Your task to perform on an android device: Open location settings Image 0: 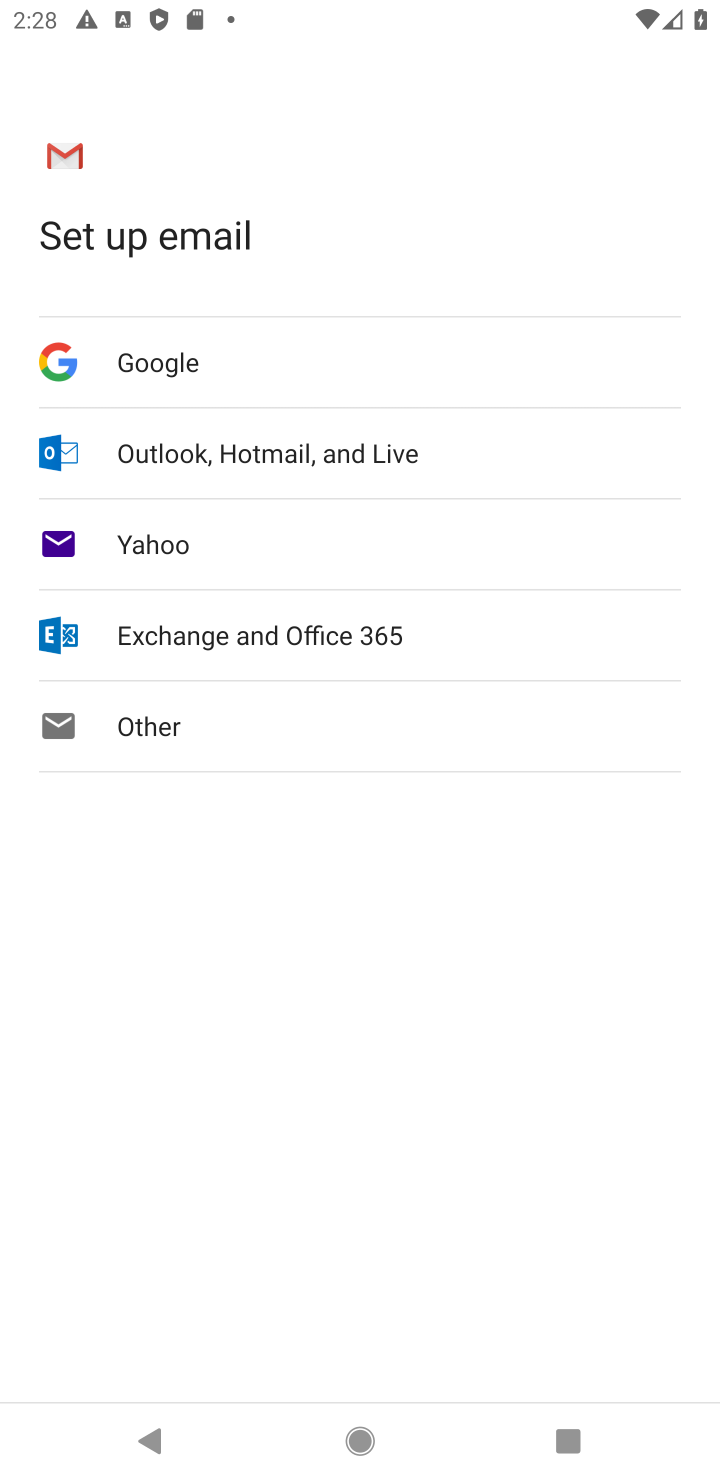
Step 0: press home button
Your task to perform on an android device: Open location settings Image 1: 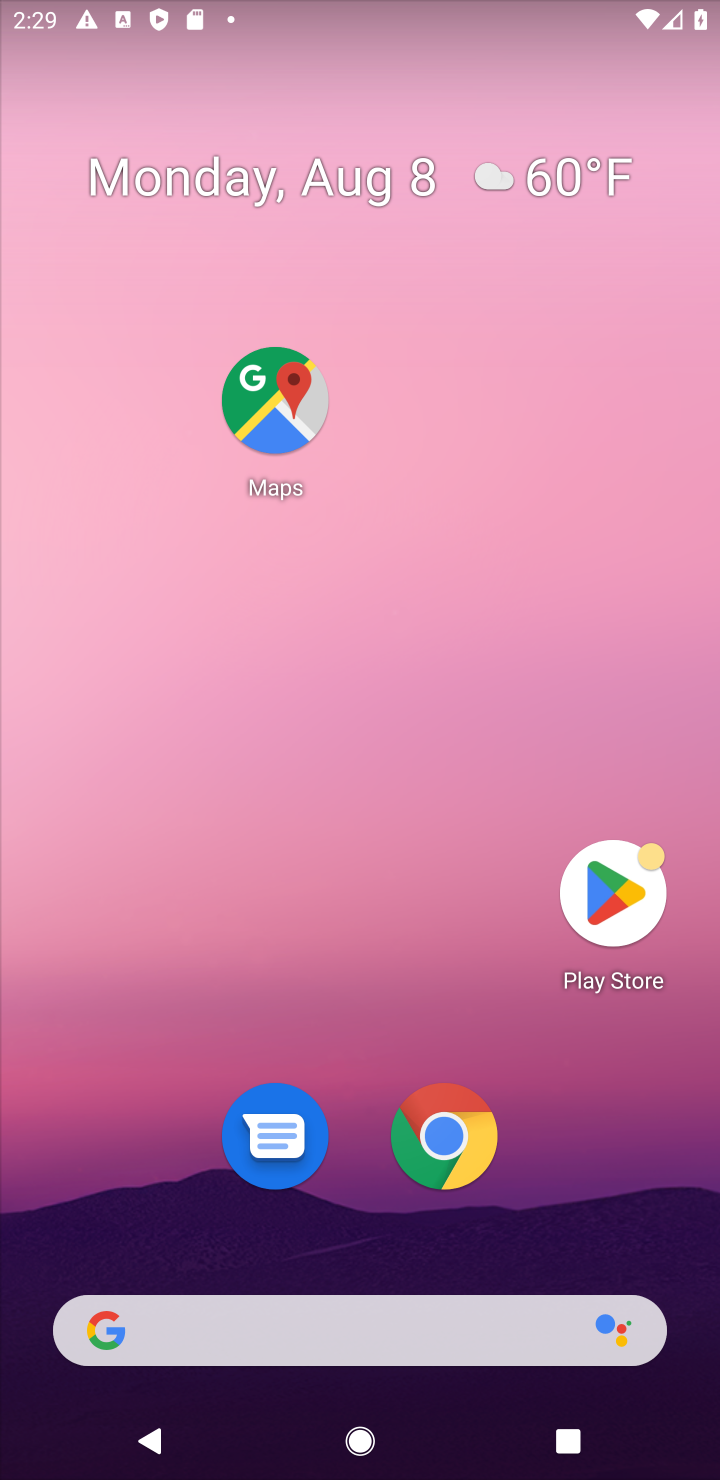
Step 1: click (384, 326)
Your task to perform on an android device: Open location settings Image 2: 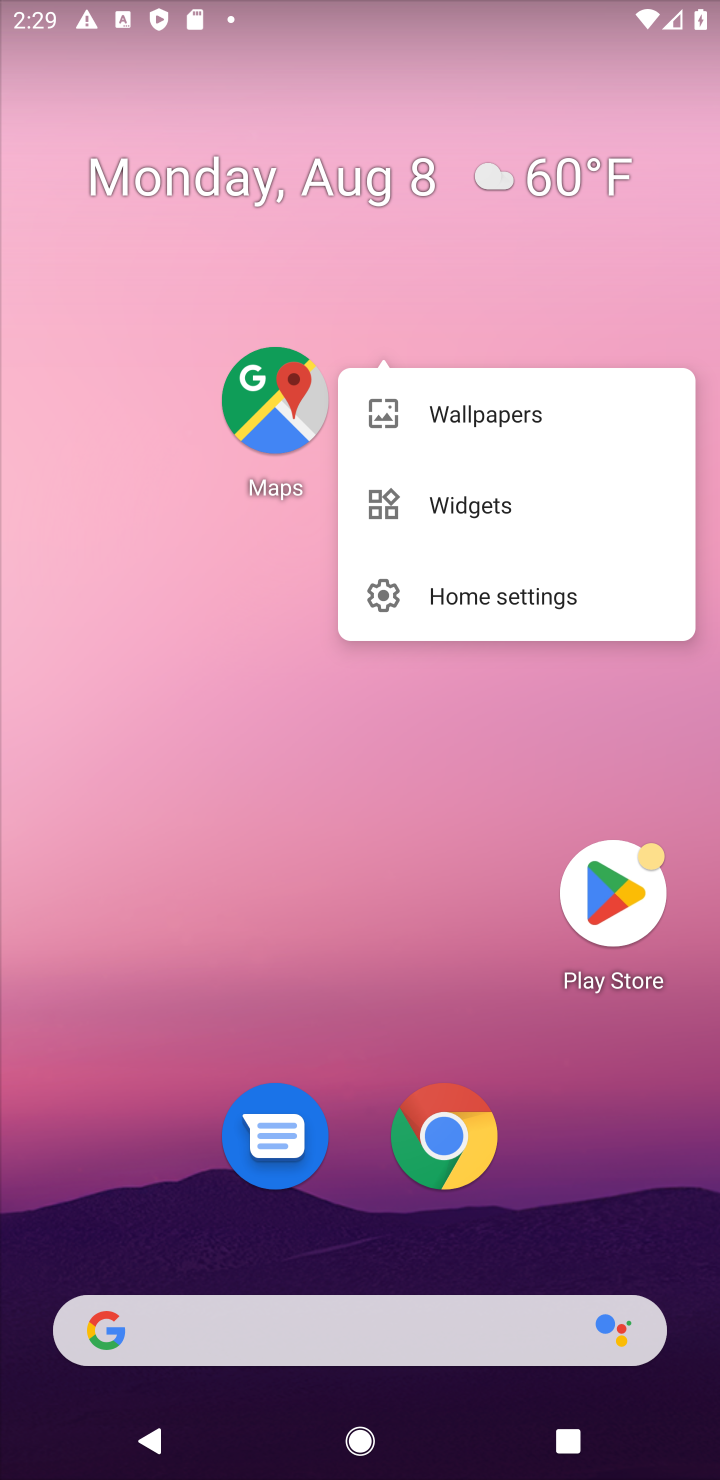
Step 2: drag from (98, 1166) to (297, 589)
Your task to perform on an android device: Open location settings Image 3: 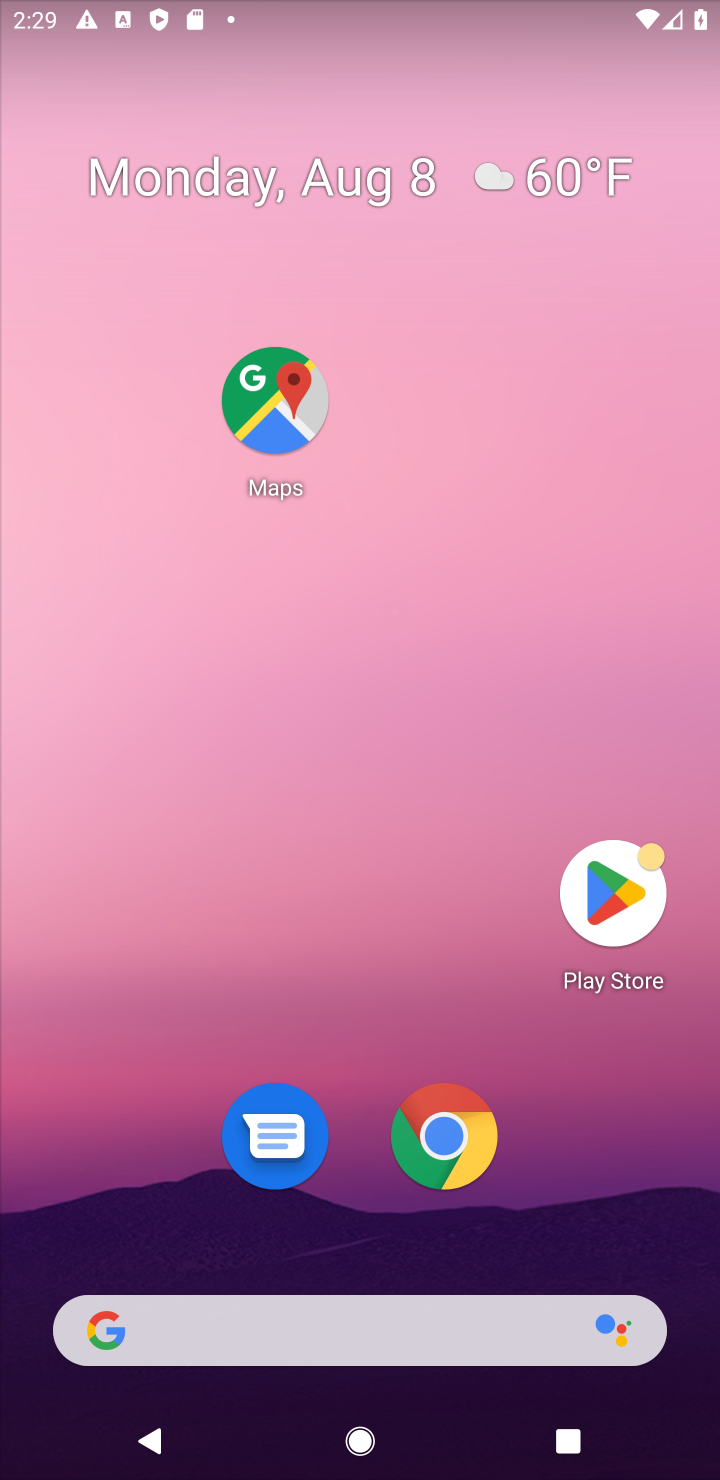
Step 3: drag from (45, 1255) to (195, 678)
Your task to perform on an android device: Open location settings Image 4: 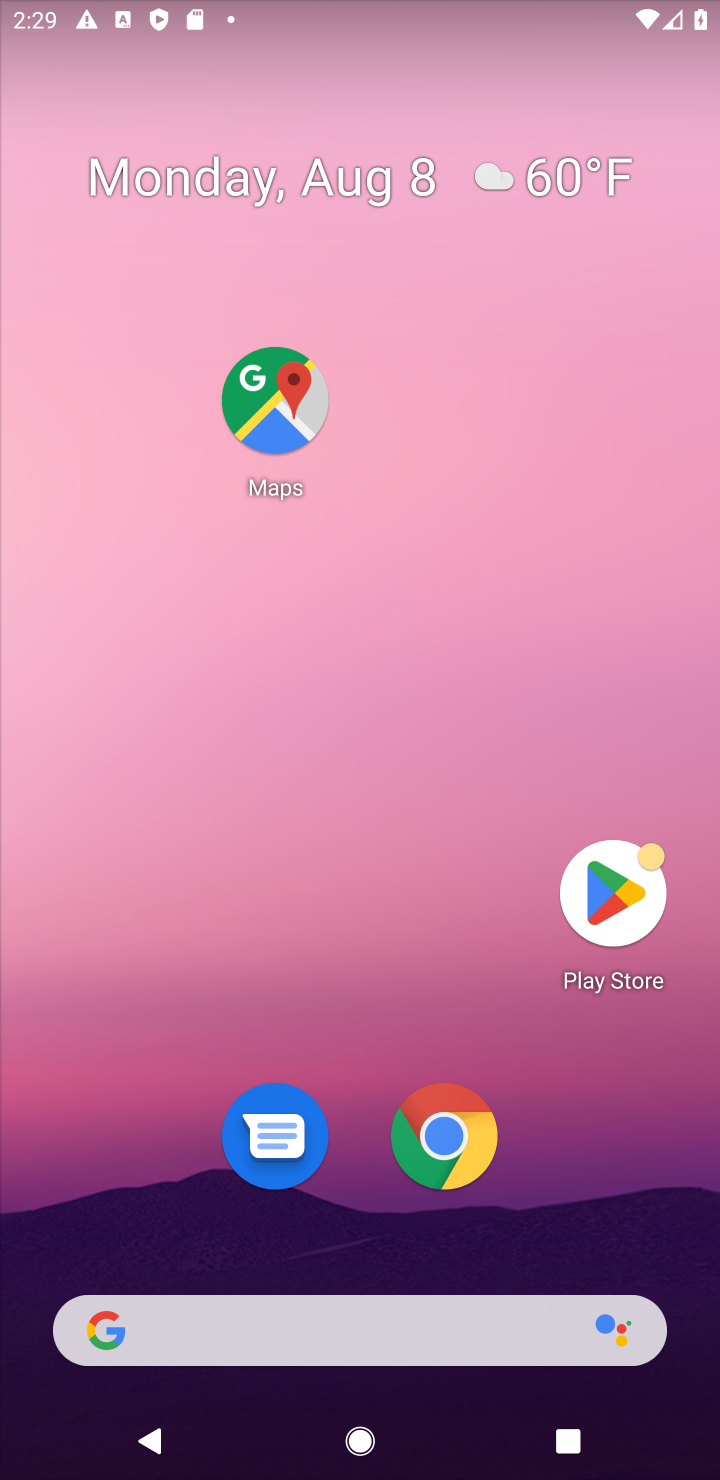
Step 4: drag from (69, 1243) to (238, 596)
Your task to perform on an android device: Open location settings Image 5: 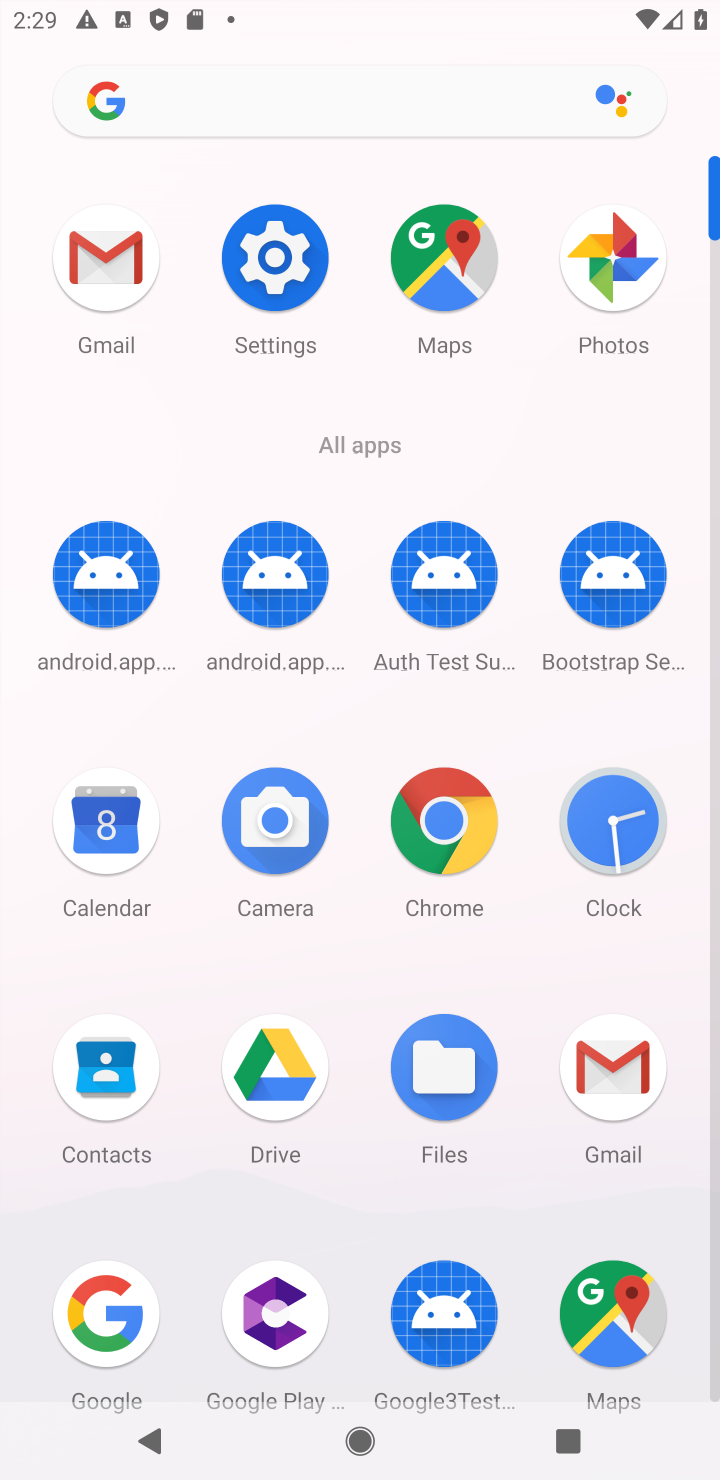
Step 5: drag from (354, 1158) to (333, 681)
Your task to perform on an android device: Open location settings Image 6: 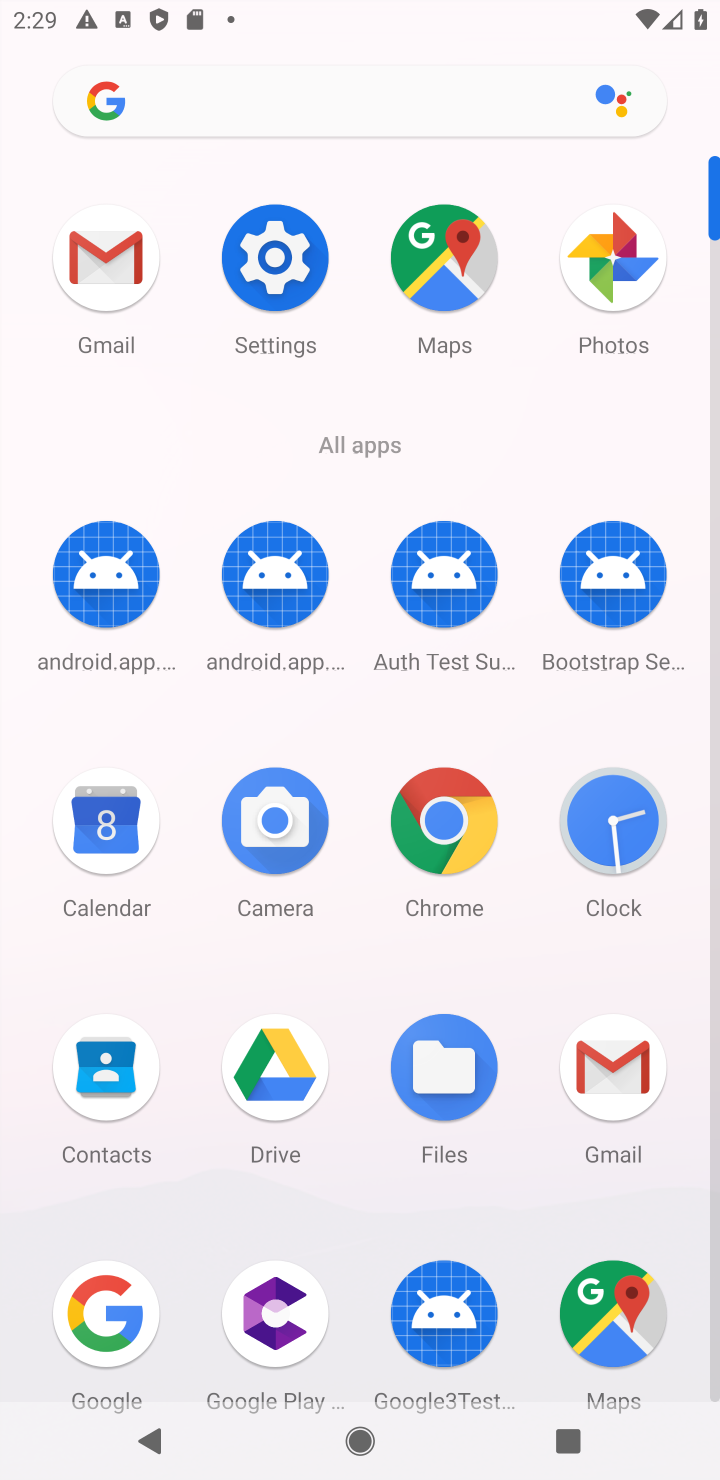
Step 6: click (300, 276)
Your task to perform on an android device: Open location settings Image 7: 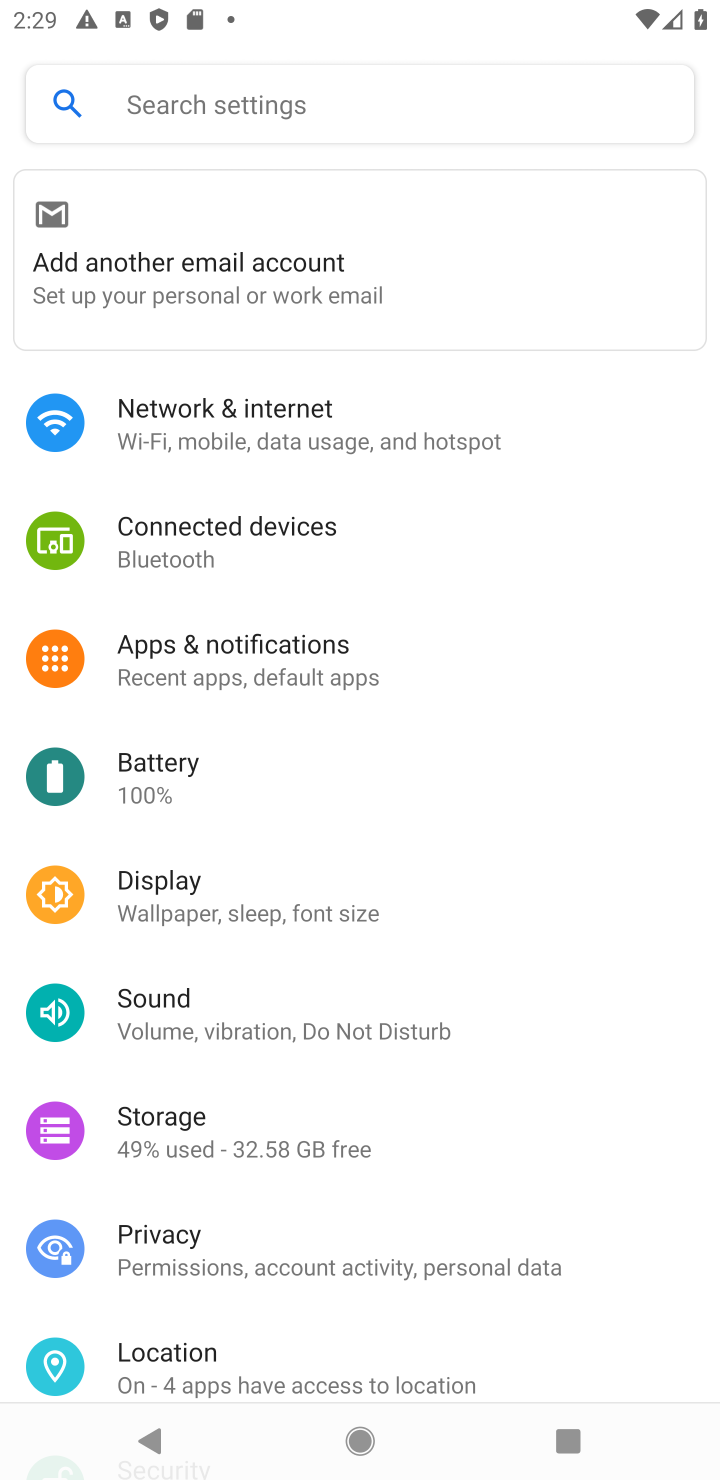
Step 7: drag from (661, 1277) to (688, 558)
Your task to perform on an android device: Open location settings Image 8: 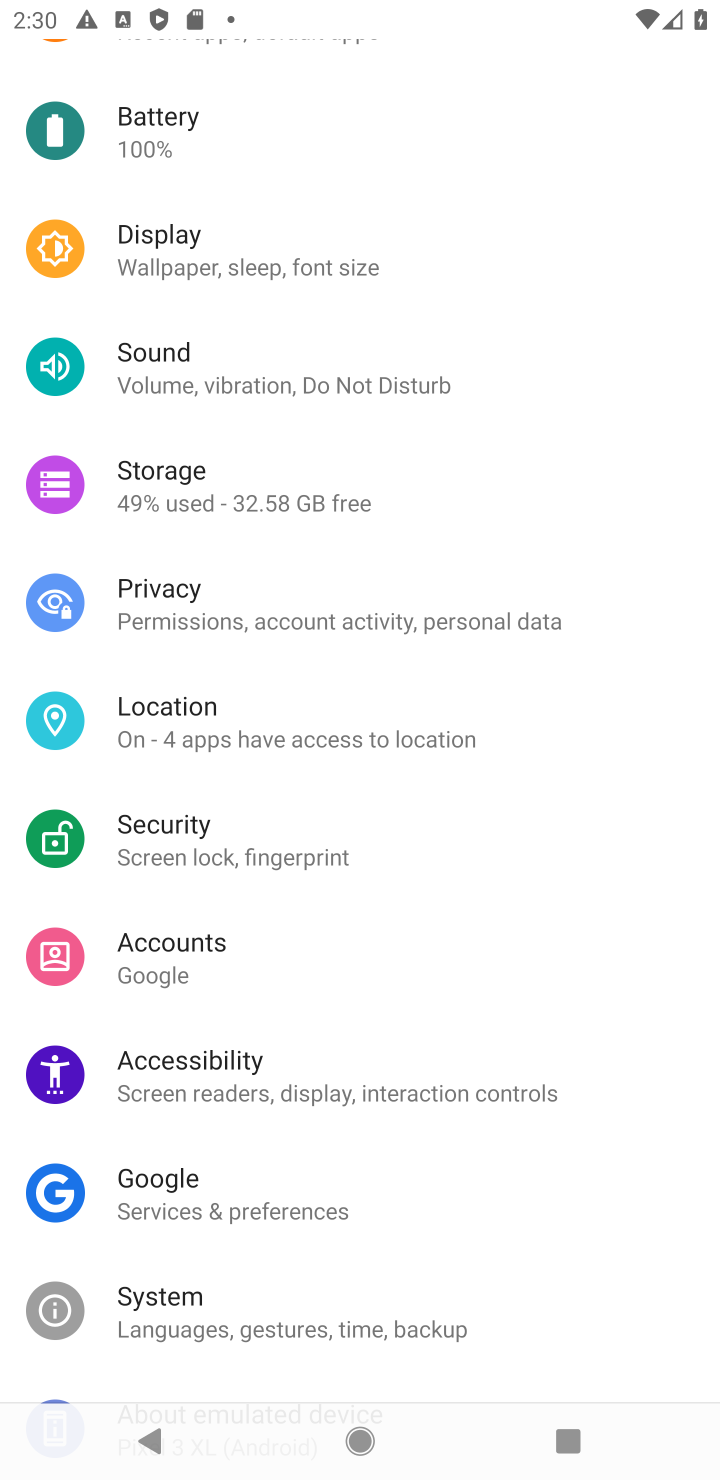
Step 8: click (264, 716)
Your task to perform on an android device: Open location settings Image 9: 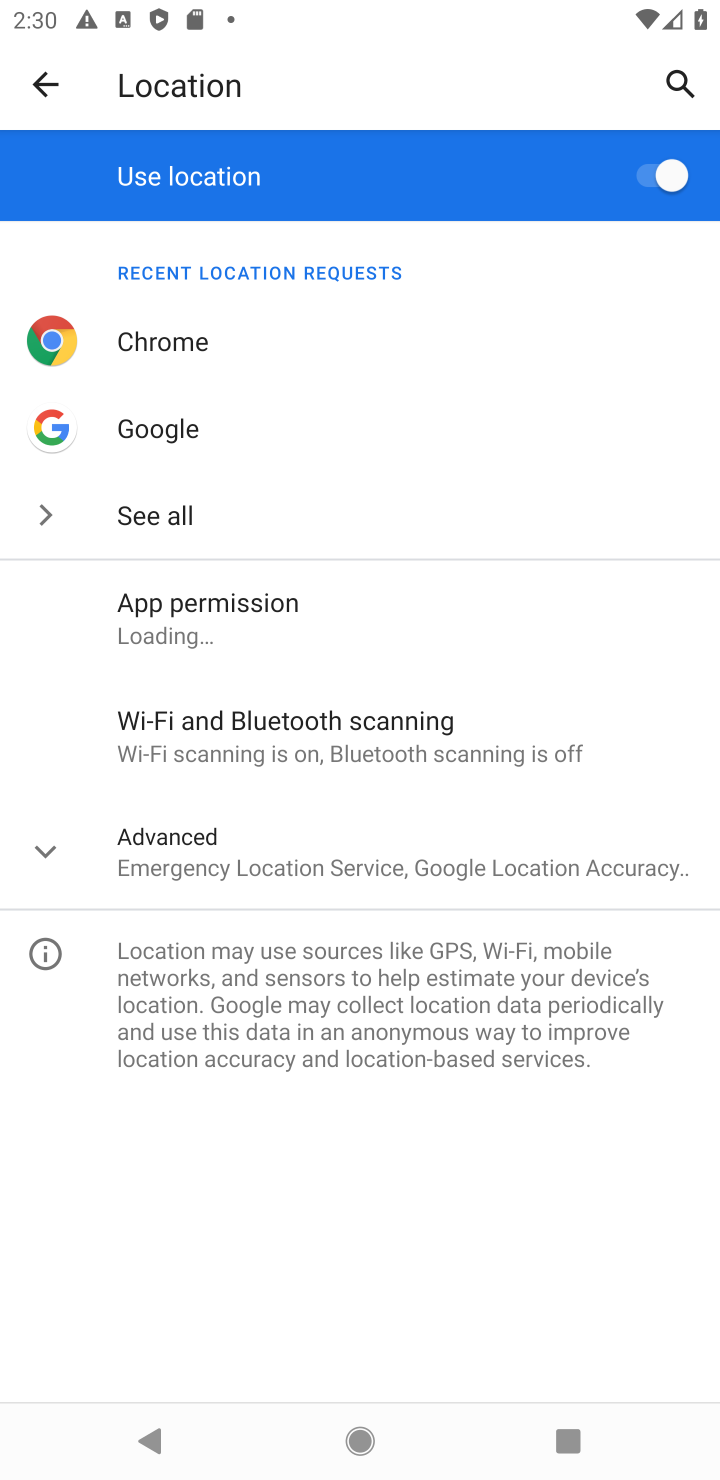
Step 9: task complete